Your task to perform on an android device: see creations saved in the google photos Image 0: 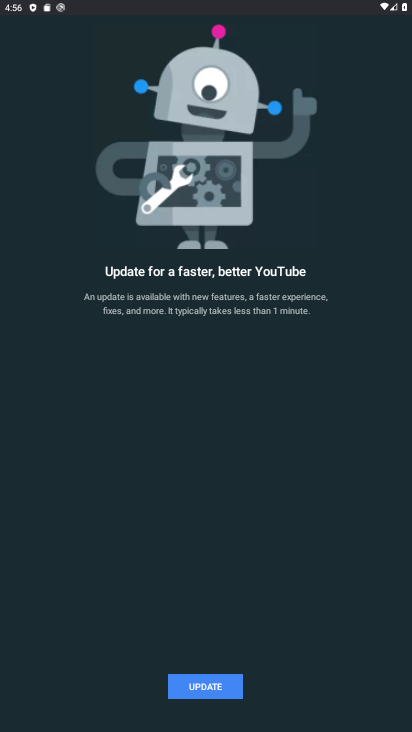
Step 0: click (215, 694)
Your task to perform on an android device: see creations saved in the google photos Image 1: 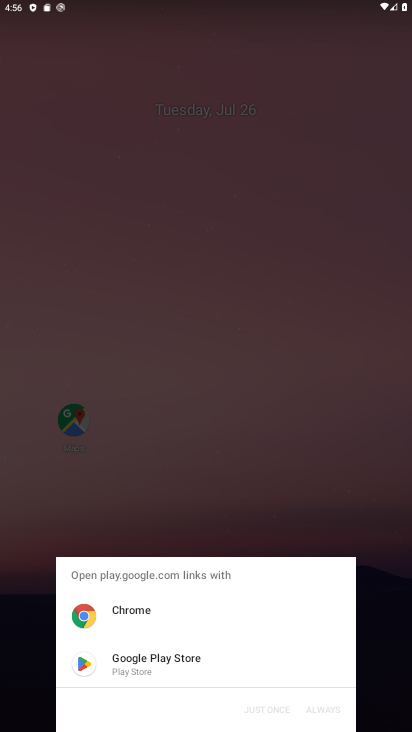
Step 1: click (119, 672)
Your task to perform on an android device: see creations saved in the google photos Image 2: 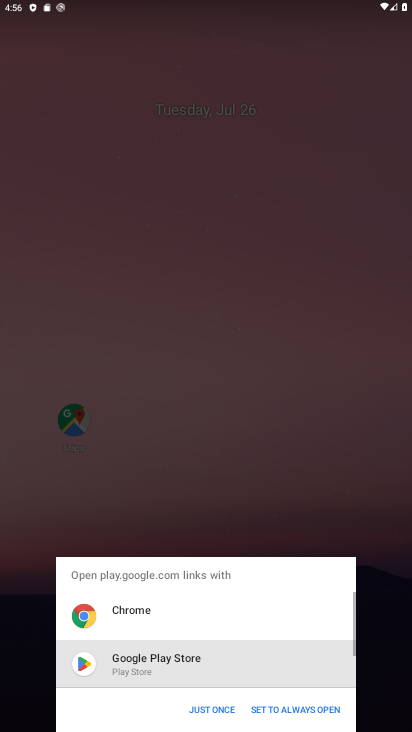
Step 2: click (219, 703)
Your task to perform on an android device: see creations saved in the google photos Image 3: 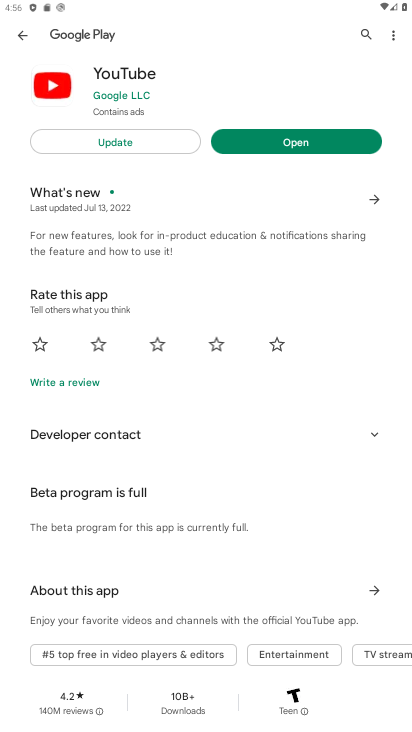
Step 3: press home button
Your task to perform on an android device: see creations saved in the google photos Image 4: 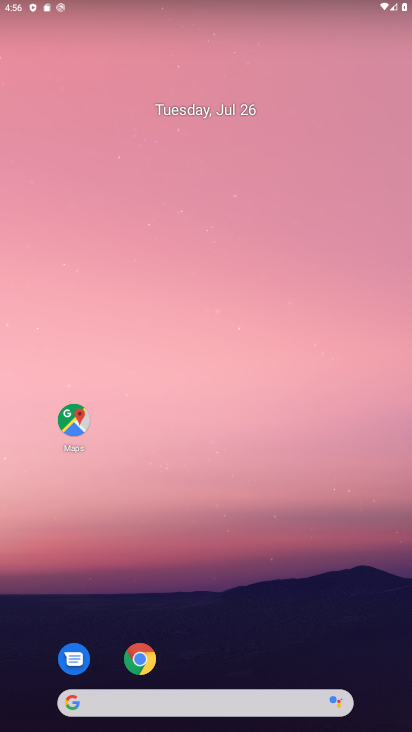
Step 4: drag from (258, 632) to (300, 100)
Your task to perform on an android device: see creations saved in the google photos Image 5: 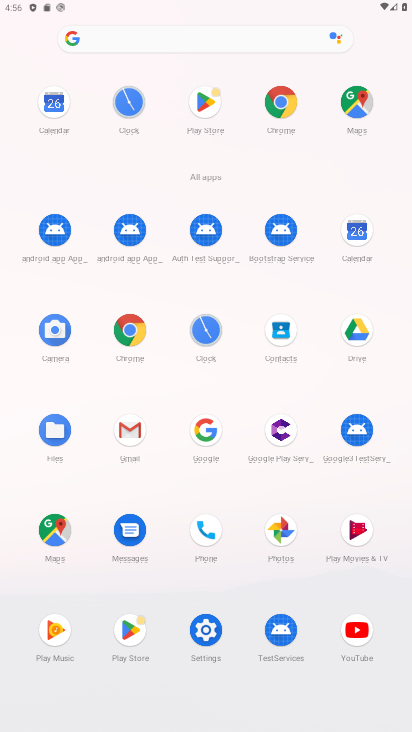
Step 5: click (275, 526)
Your task to perform on an android device: see creations saved in the google photos Image 6: 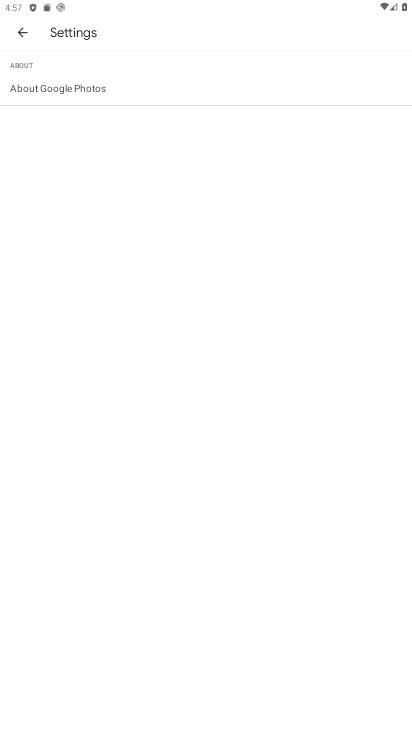
Step 6: click (15, 26)
Your task to perform on an android device: see creations saved in the google photos Image 7: 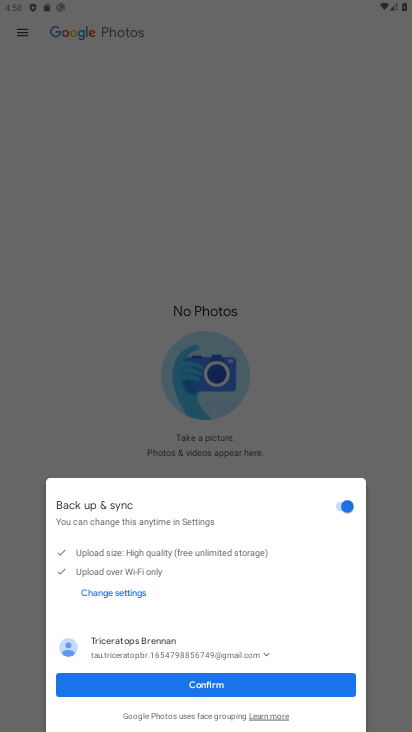
Step 7: click (253, 686)
Your task to perform on an android device: see creations saved in the google photos Image 8: 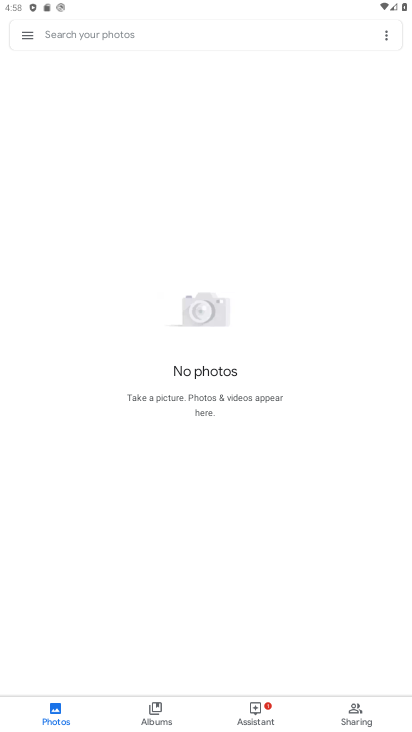
Step 8: click (130, 34)
Your task to perform on an android device: see creations saved in the google photos Image 9: 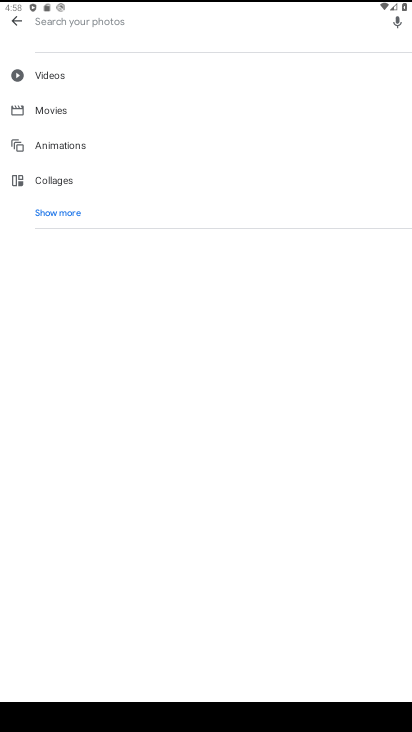
Step 9: click (59, 210)
Your task to perform on an android device: see creations saved in the google photos Image 10: 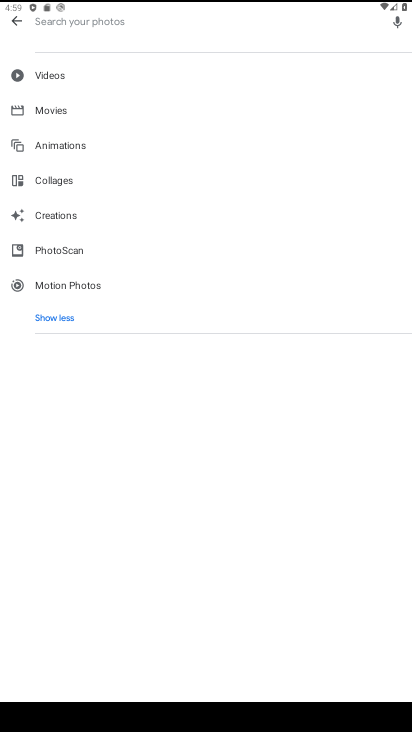
Step 10: click (59, 210)
Your task to perform on an android device: see creations saved in the google photos Image 11: 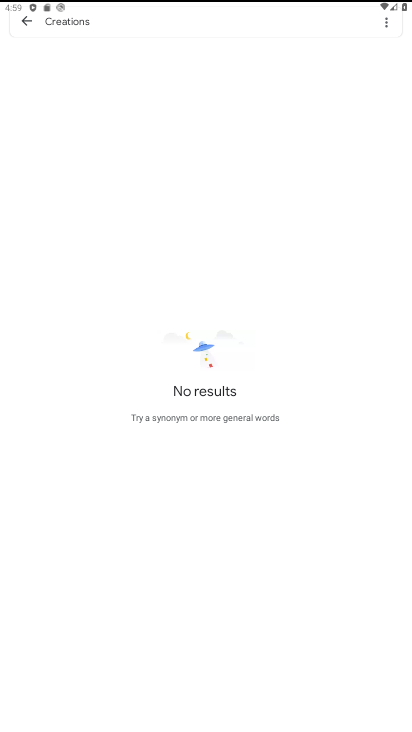
Step 11: task complete